Your task to perform on an android device: Search for pizza restaurants on Maps Image 0: 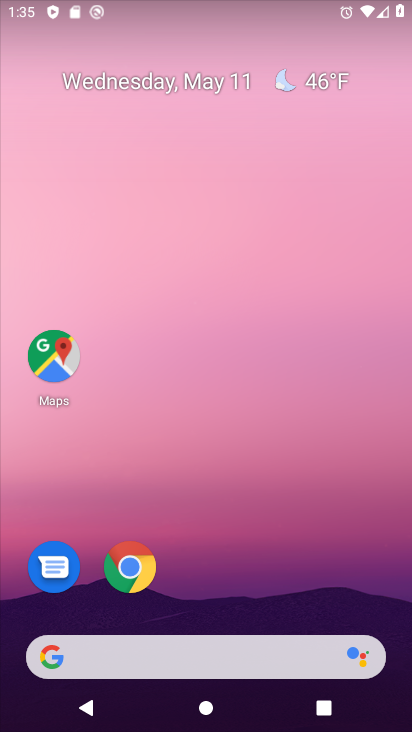
Step 0: click (72, 348)
Your task to perform on an android device: Search for pizza restaurants on Maps Image 1: 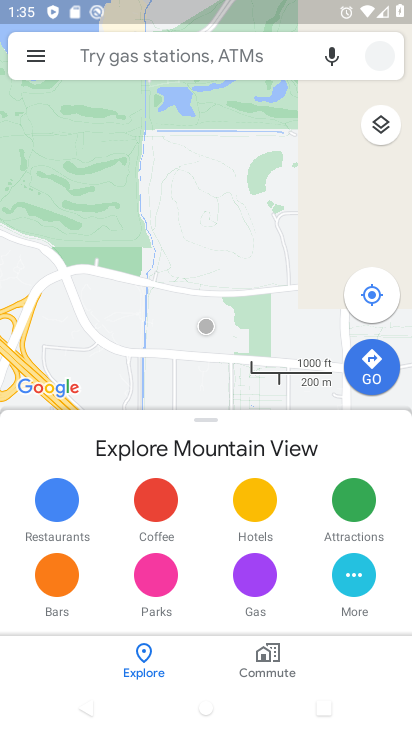
Step 1: click (188, 60)
Your task to perform on an android device: Search for pizza restaurants on Maps Image 2: 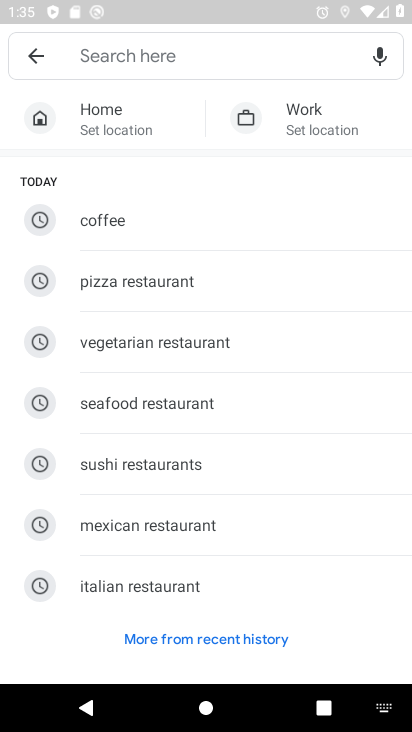
Step 2: click (140, 291)
Your task to perform on an android device: Search for pizza restaurants on Maps Image 3: 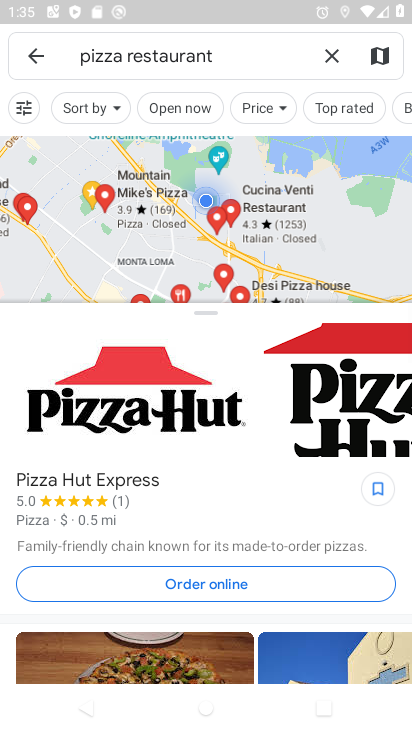
Step 3: task complete